Your task to perform on an android device: Go to settings Image 0: 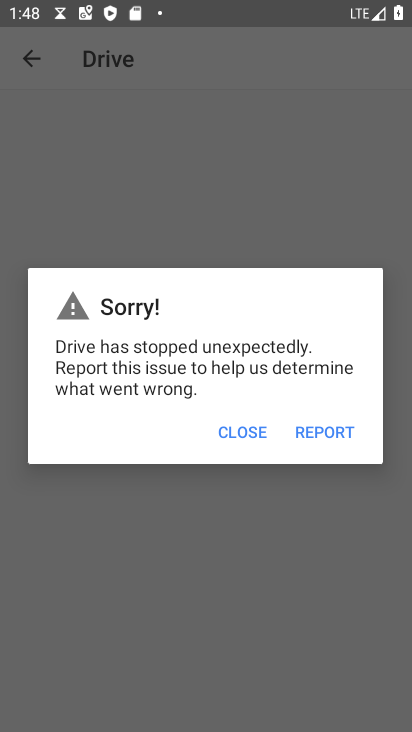
Step 0: press home button
Your task to perform on an android device: Go to settings Image 1: 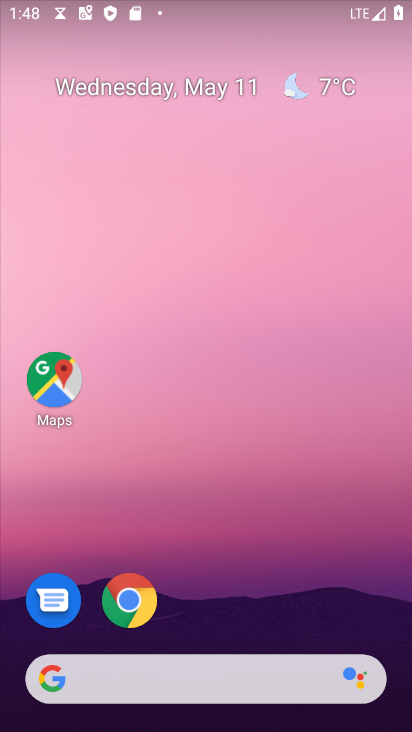
Step 1: drag from (265, 582) to (203, 110)
Your task to perform on an android device: Go to settings Image 2: 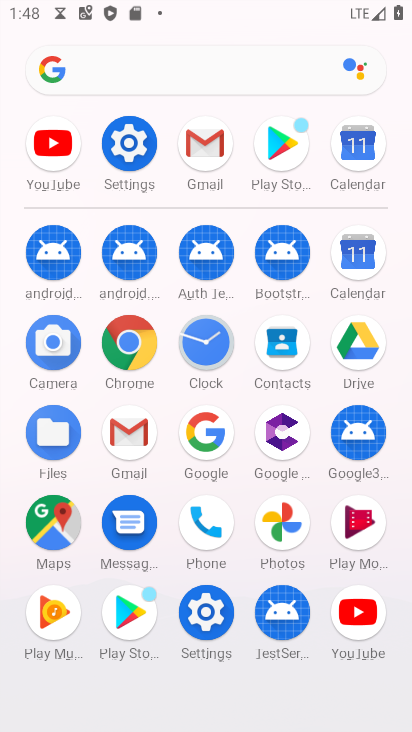
Step 2: click (131, 145)
Your task to perform on an android device: Go to settings Image 3: 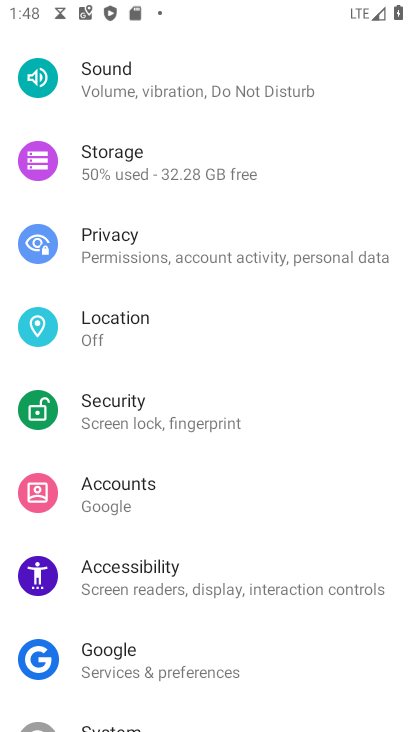
Step 3: task complete